Your task to perform on an android device: Search for dining sets on article.com Image 0: 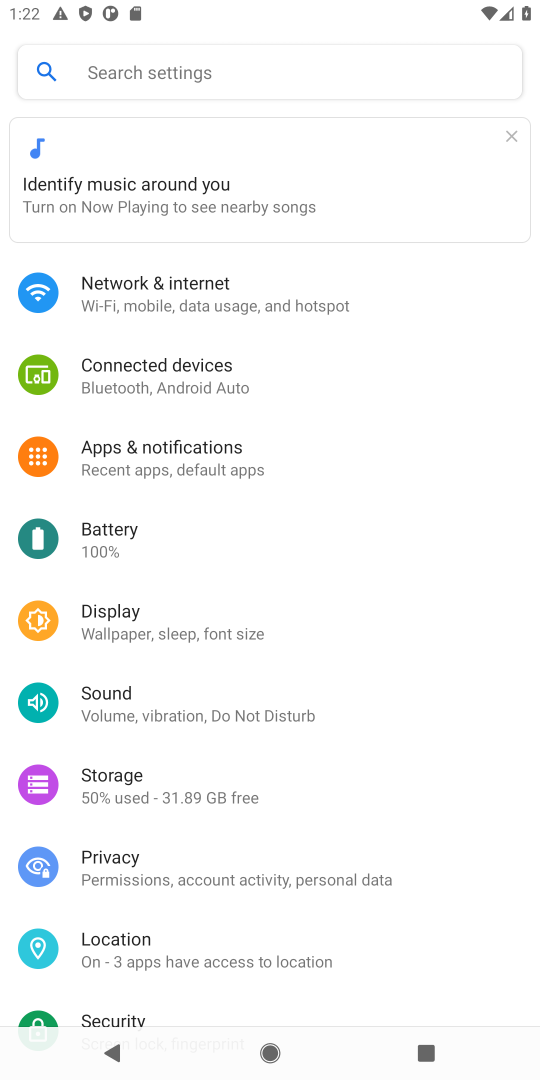
Step 0: press home button
Your task to perform on an android device: Search for dining sets on article.com Image 1: 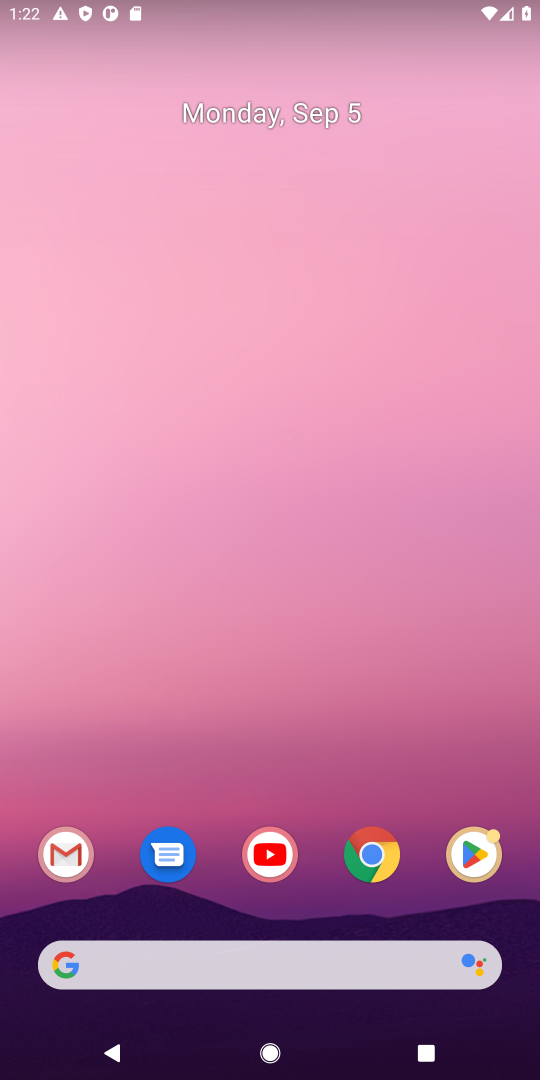
Step 1: click (356, 961)
Your task to perform on an android device: Search for dining sets on article.com Image 2: 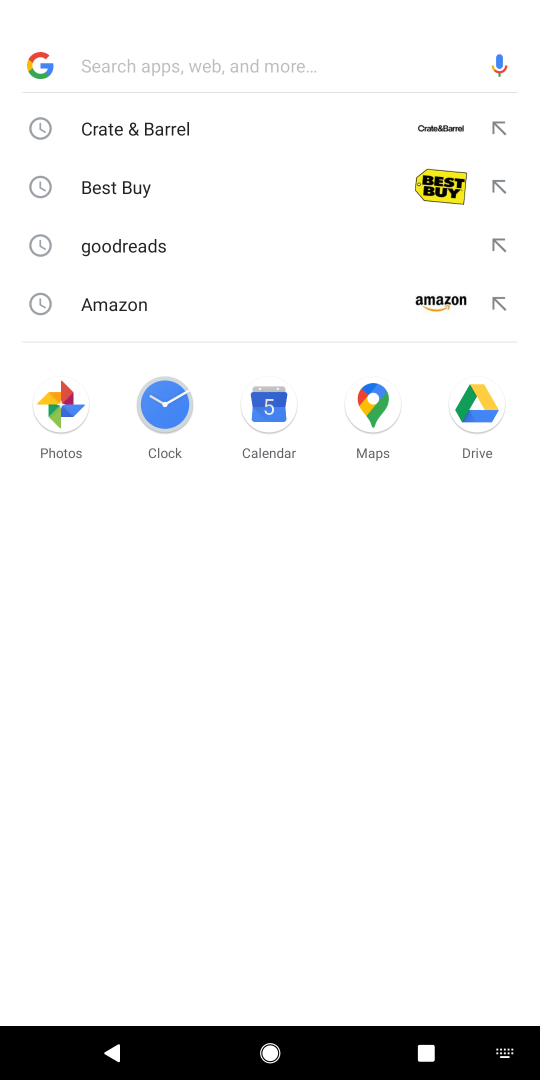
Step 2: type "article.com"
Your task to perform on an android device: Search for dining sets on article.com Image 3: 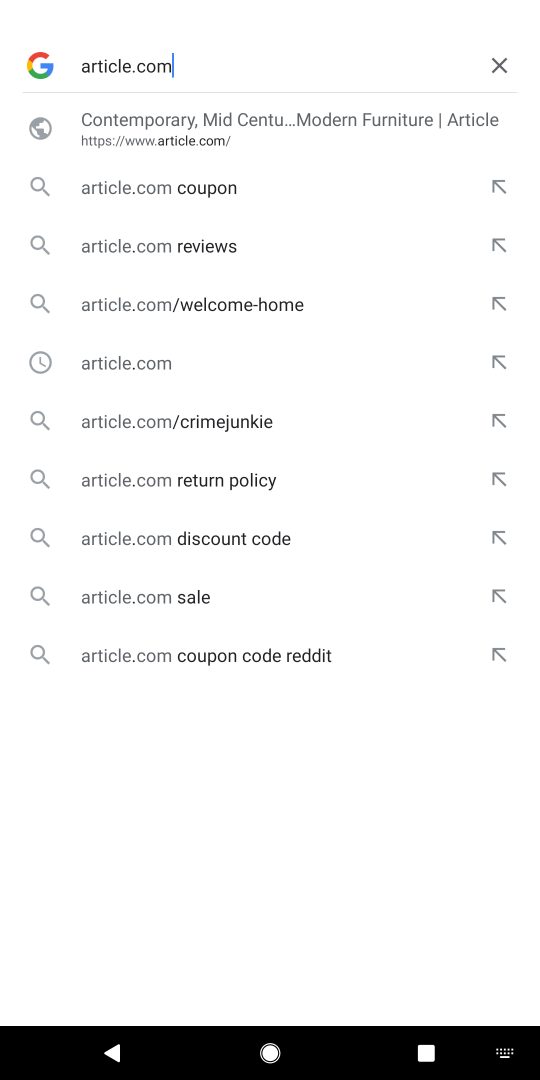
Step 3: press enter
Your task to perform on an android device: Search for dining sets on article.com Image 4: 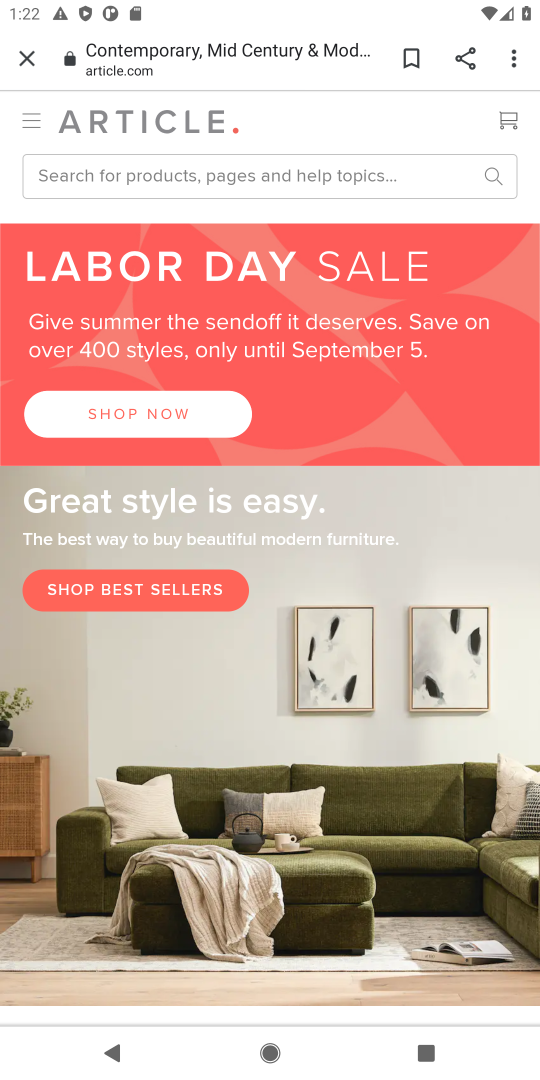
Step 4: click (49, 170)
Your task to perform on an android device: Search for dining sets on article.com Image 5: 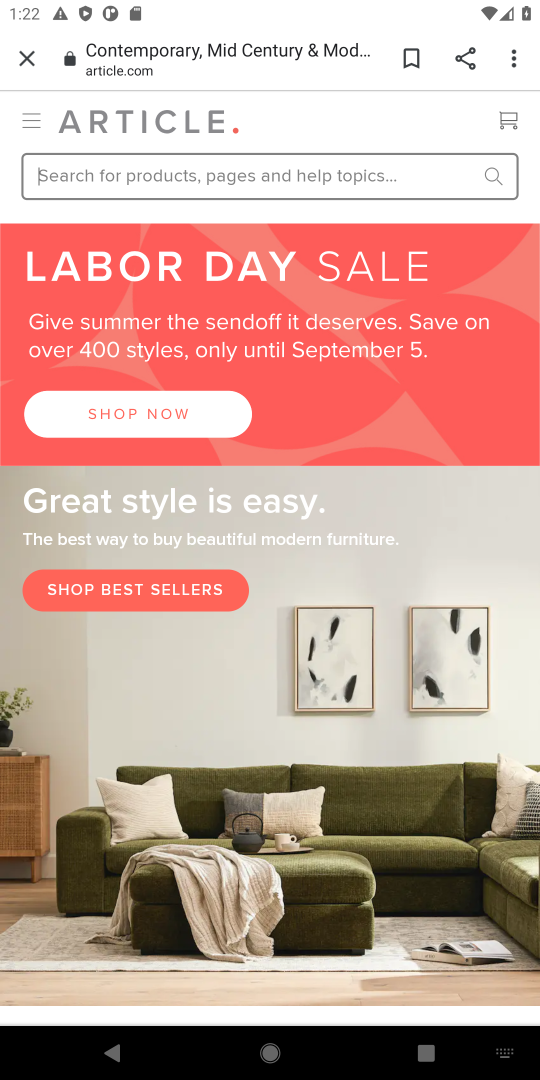
Step 5: type "dining sets"
Your task to perform on an android device: Search for dining sets on article.com Image 6: 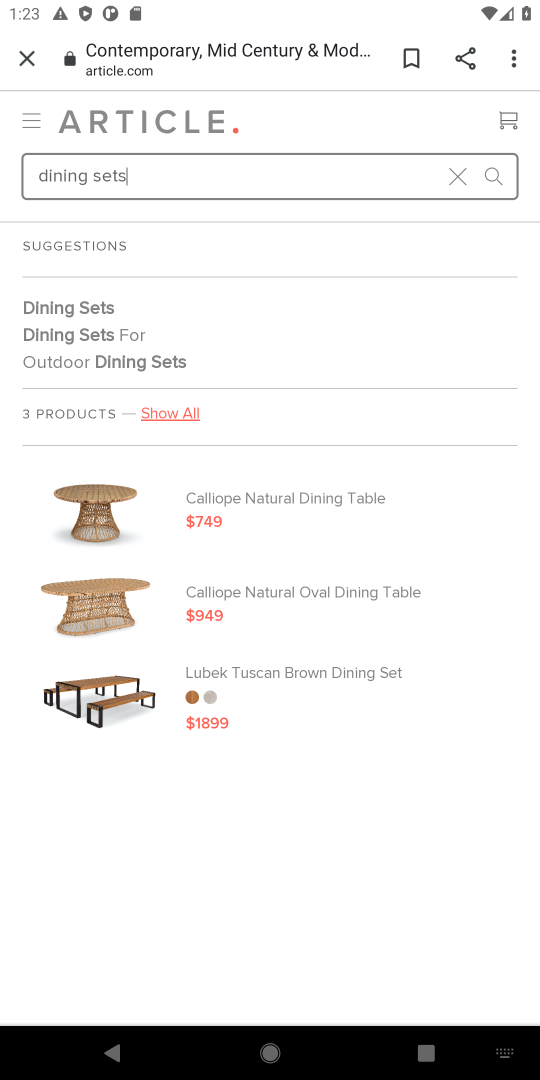
Step 6: click (96, 302)
Your task to perform on an android device: Search for dining sets on article.com Image 7: 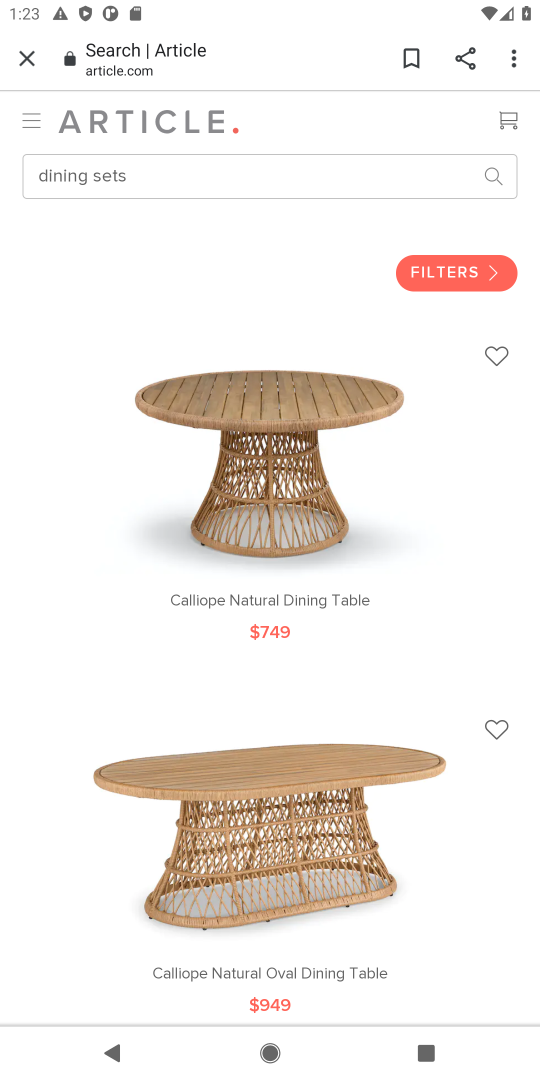
Step 7: task complete